Your task to perform on an android device: see tabs open on other devices in the chrome app Image 0: 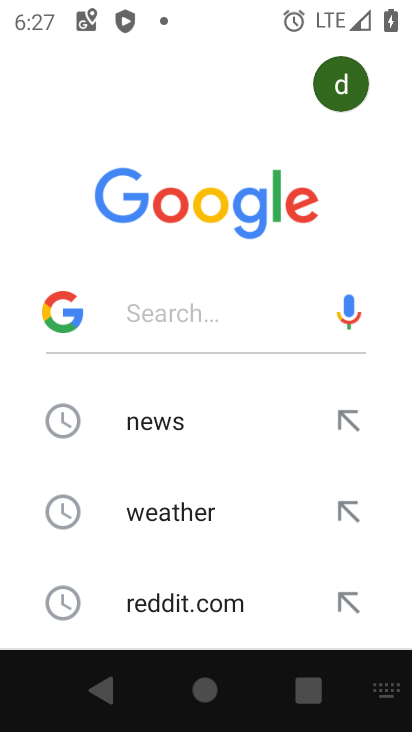
Step 0: drag from (335, 521) to (307, 176)
Your task to perform on an android device: see tabs open on other devices in the chrome app Image 1: 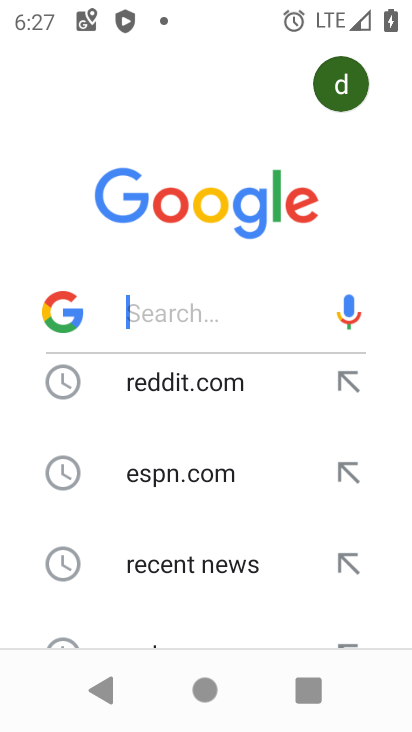
Step 1: press home button
Your task to perform on an android device: see tabs open on other devices in the chrome app Image 2: 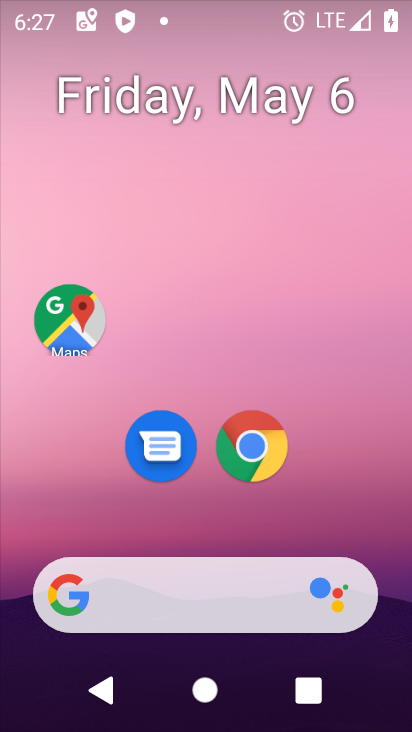
Step 2: drag from (328, 512) to (293, 224)
Your task to perform on an android device: see tabs open on other devices in the chrome app Image 3: 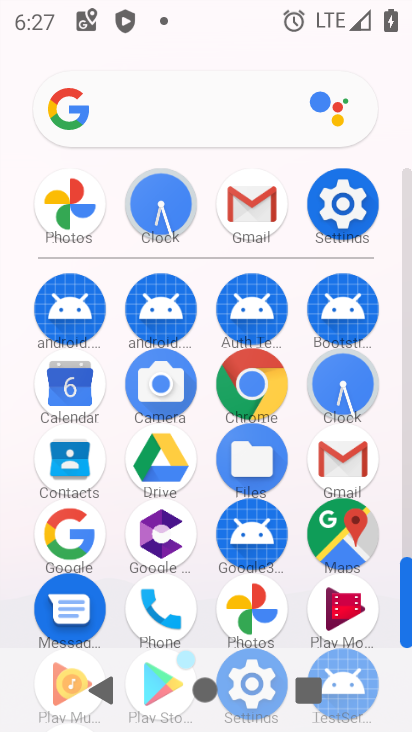
Step 3: click (251, 394)
Your task to perform on an android device: see tabs open on other devices in the chrome app Image 4: 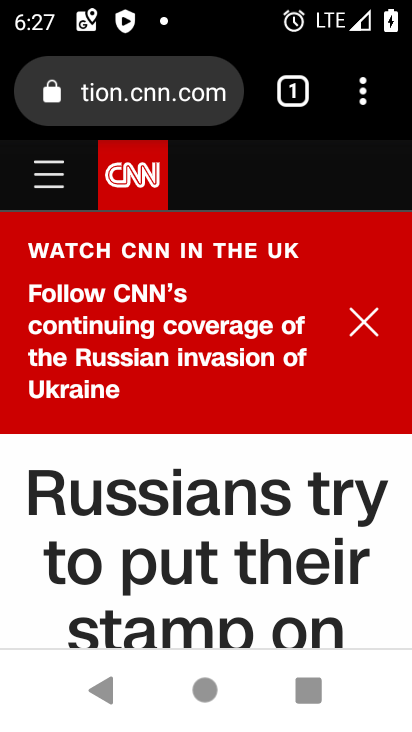
Step 4: click (360, 100)
Your task to perform on an android device: see tabs open on other devices in the chrome app Image 5: 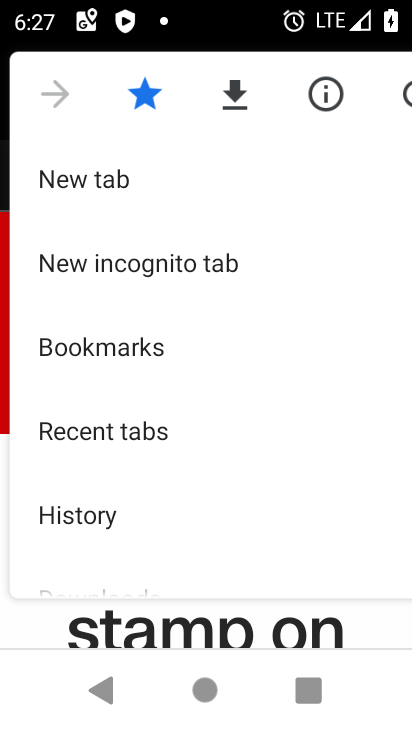
Step 5: click (91, 436)
Your task to perform on an android device: see tabs open on other devices in the chrome app Image 6: 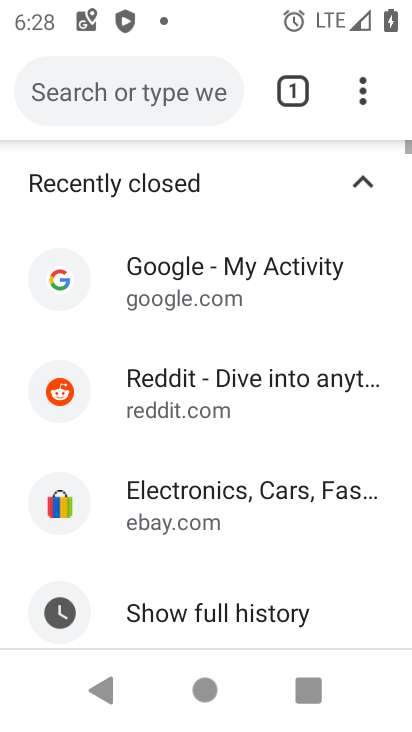
Step 6: task complete